Your task to perform on an android device: Search for seafood restaurants on Google Maps Image 0: 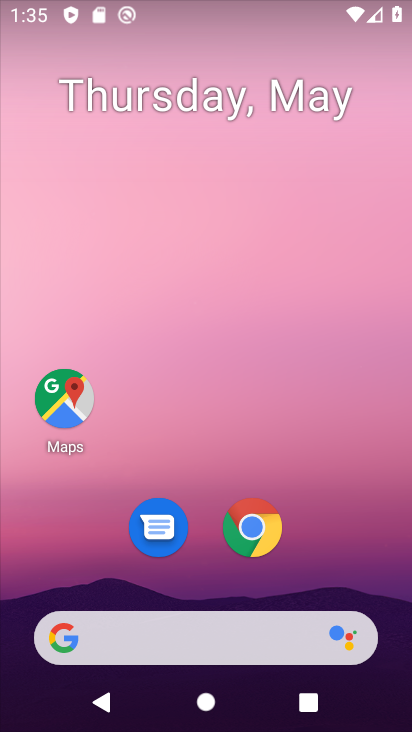
Step 0: drag from (198, 563) to (204, 77)
Your task to perform on an android device: Search for seafood restaurants on Google Maps Image 1: 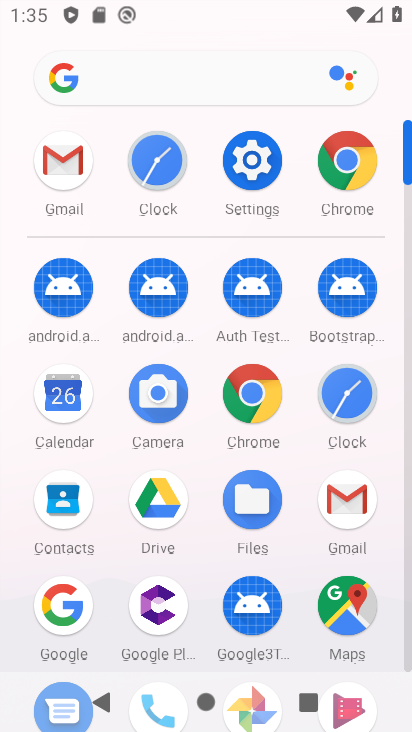
Step 1: click (342, 605)
Your task to perform on an android device: Search for seafood restaurants on Google Maps Image 2: 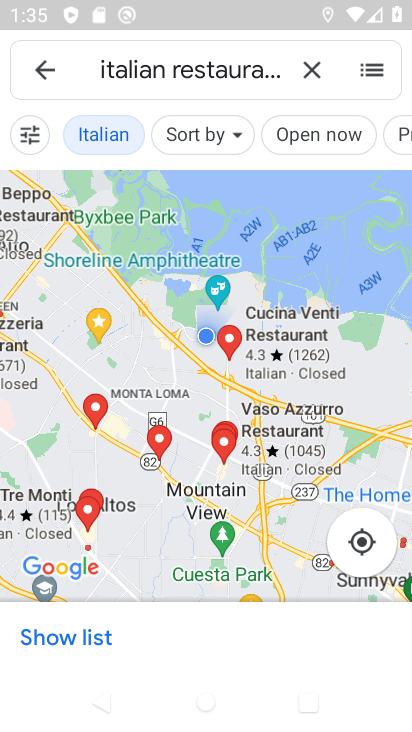
Step 2: click (314, 67)
Your task to perform on an android device: Search for seafood restaurants on Google Maps Image 3: 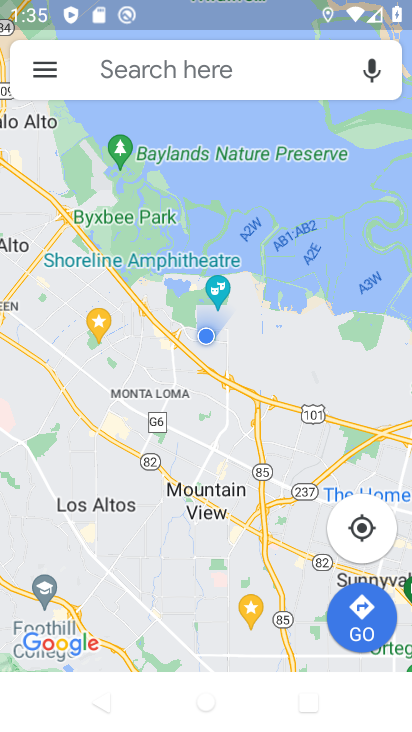
Step 3: click (191, 47)
Your task to perform on an android device: Search for seafood restaurants on Google Maps Image 4: 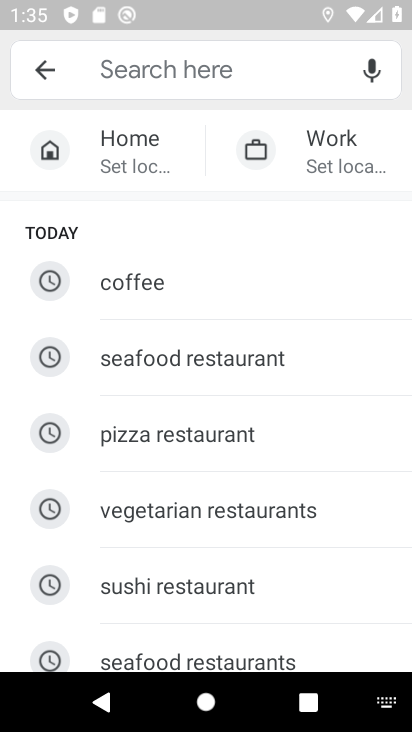
Step 4: click (118, 375)
Your task to perform on an android device: Search for seafood restaurants on Google Maps Image 5: 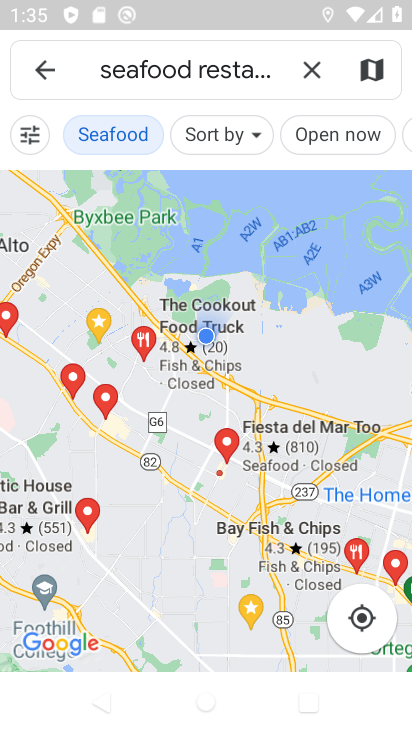
Step 5: task complete